Your task to perform on an android device: Go to Reddit.com Image 0: 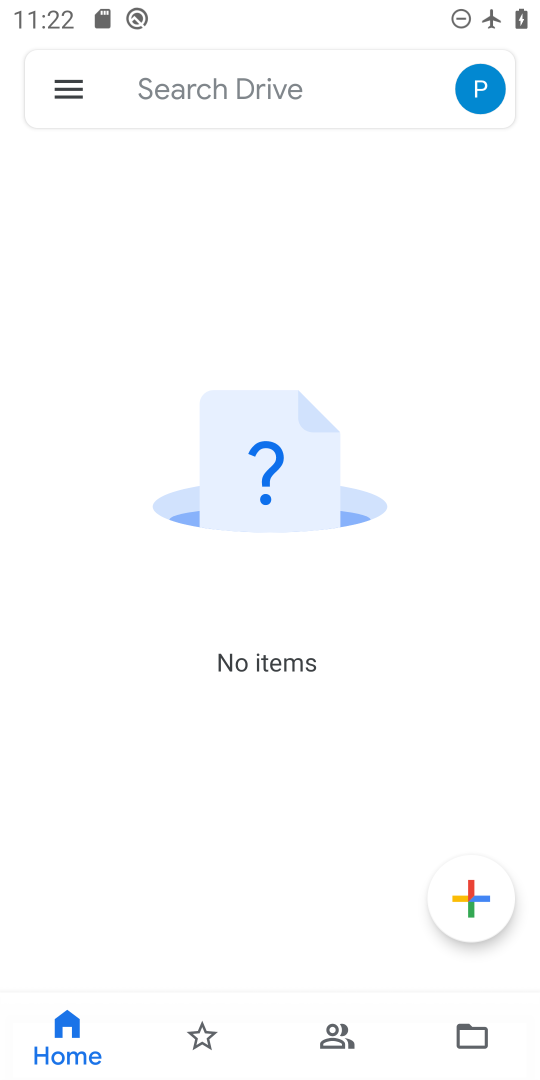
Step 0: press home button
Your task to perform on an android device: Go to Reddit.com Image 1: 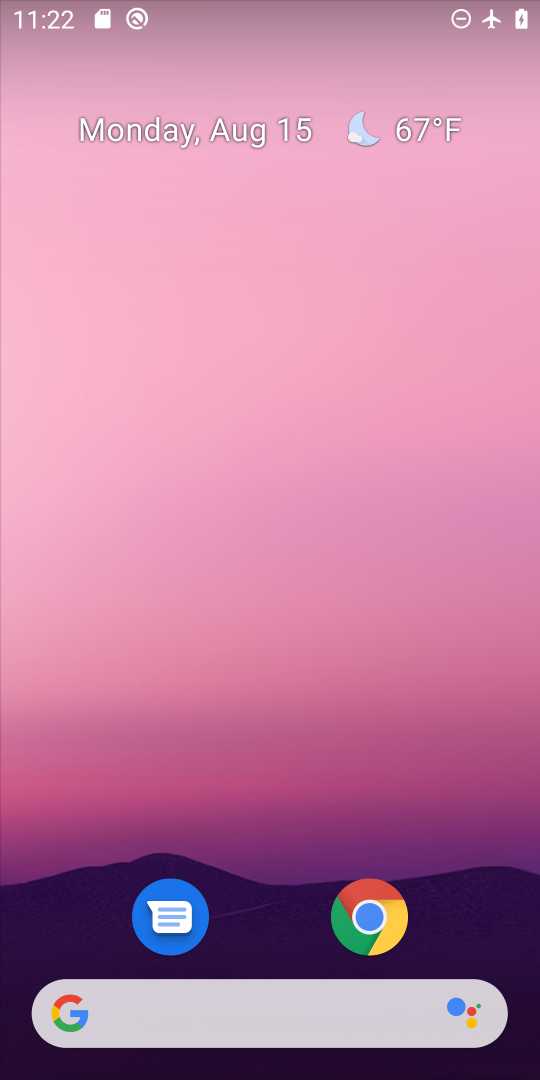
Step 1: click (317, 1031)
Your task to perform on an android device: Go to Reddit.com Image 2: 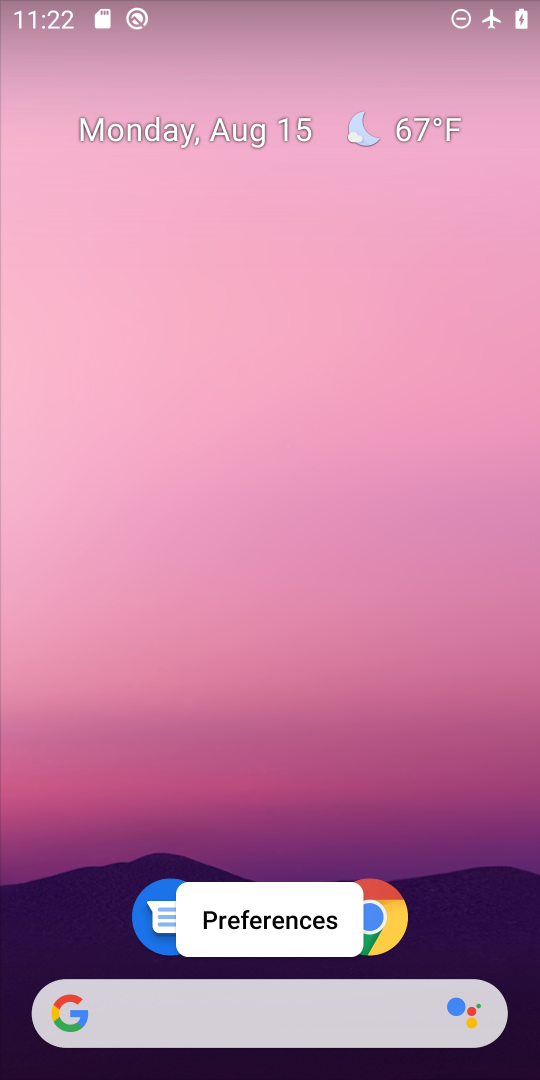
Step 2: click (324, 1026)
Your task to perform on an android device: Go to Reddit.com Image 3: 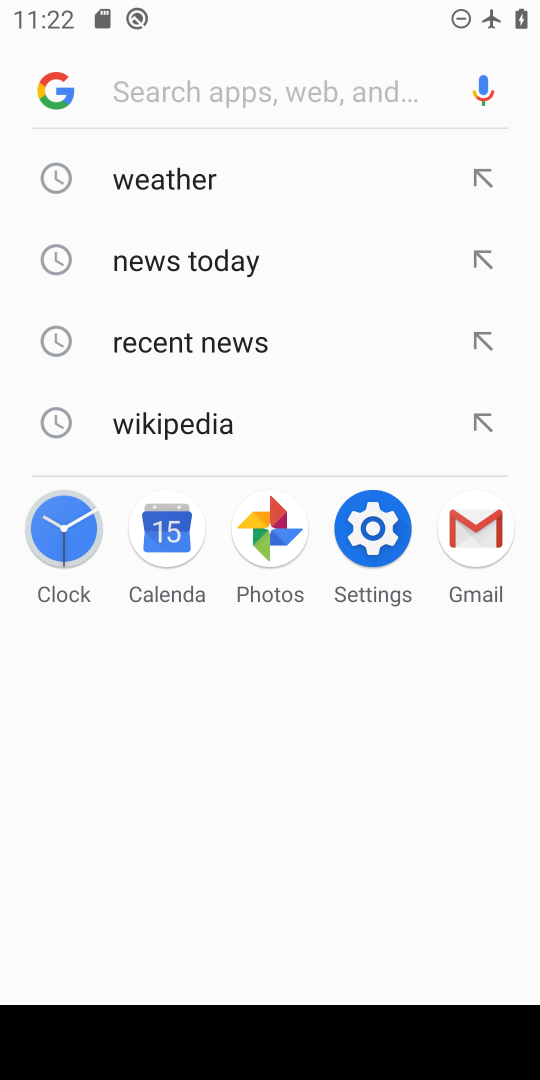
Step 3: type "reddit.com"
Your task to perform on an android device: Go to Reddit.com Image 4: 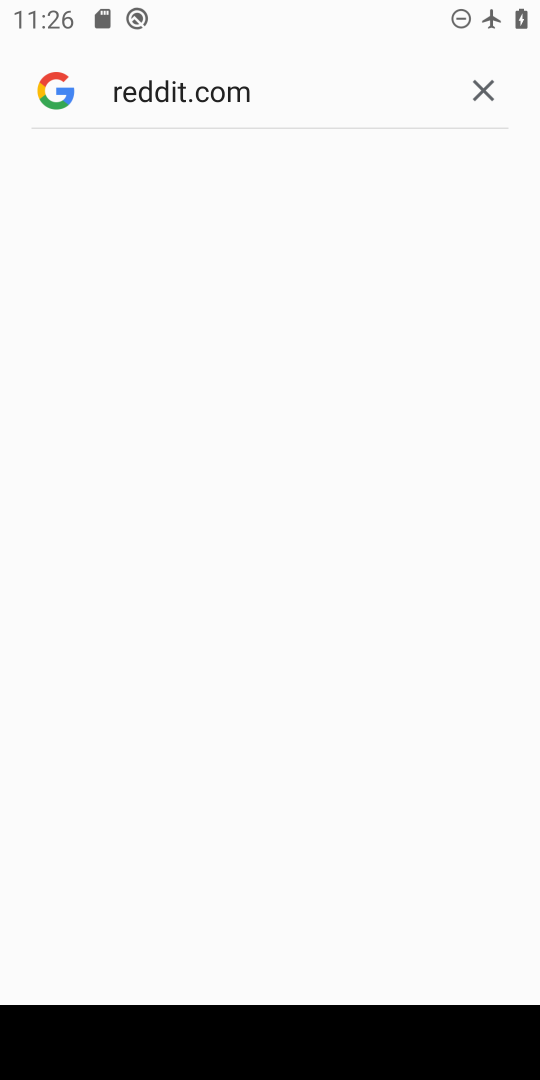
Step 4: task complete